Your task to perform on an android device: Go to privacy settings Image 0: 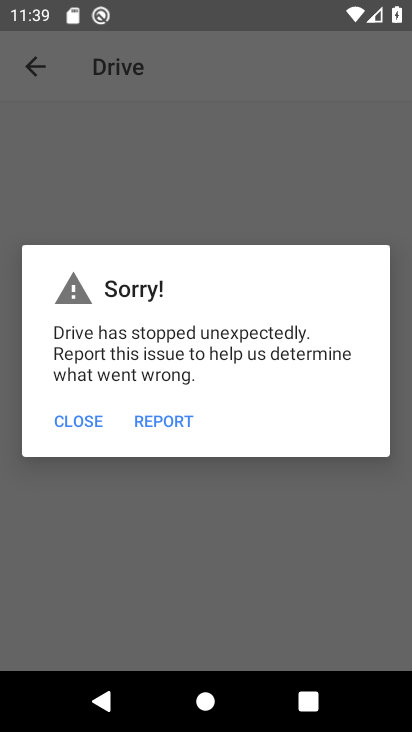
Step 0: press home button
Your task to perform on an android device: Go to privacy settings Image 1: 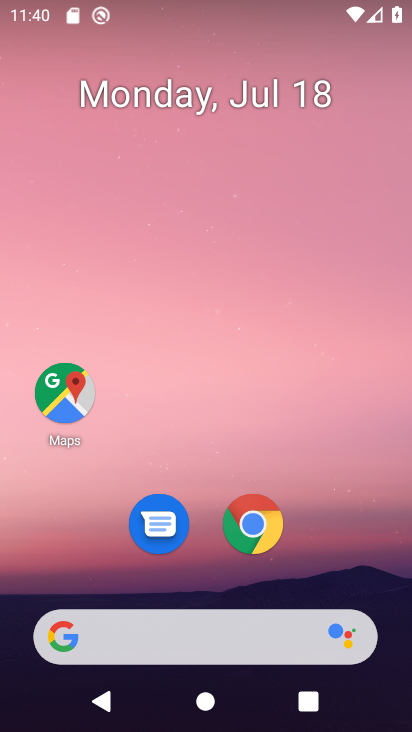
Step 1: drag from (325, 515) to (379, 33)
Your task to perform on an android device: Go to privacy settings Image 2: 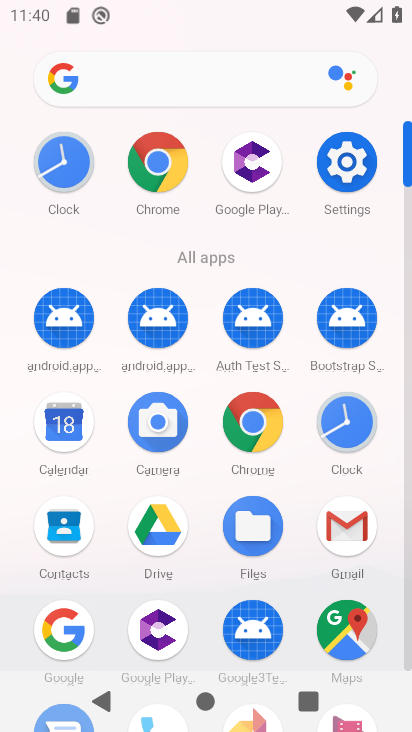
Step 2: click (349, 151)
Your task to perform on an android device: Go to privacy settings Image 3: 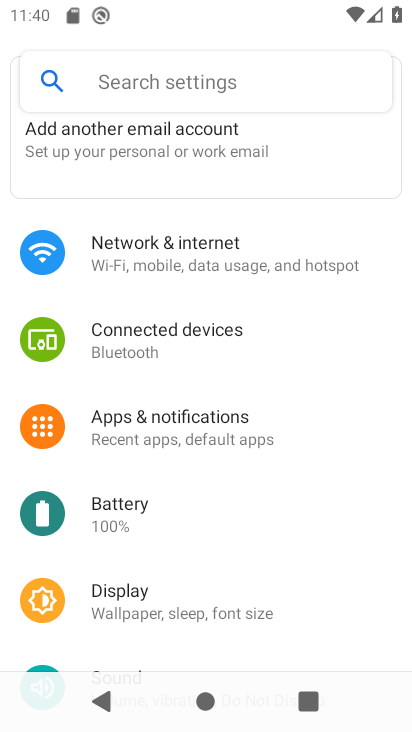
Step 3: drag from (240, 548) to (290, 114)
Your task to perform on an android device: Go to privacy settings Image 4: 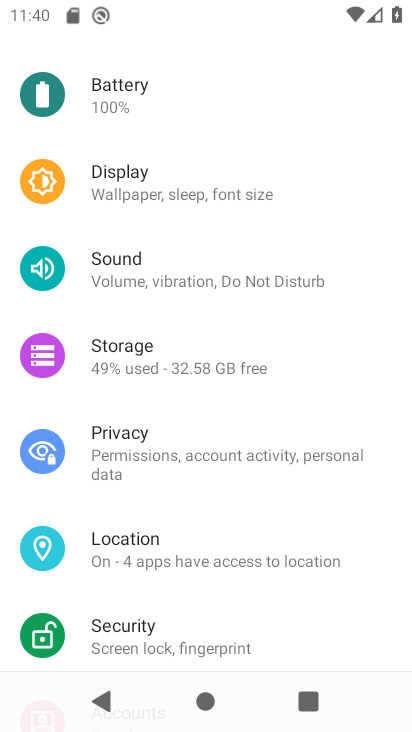
Step 4: click (192, 439)
Your task to perform on an android device: Go to privacy settings Image 5: 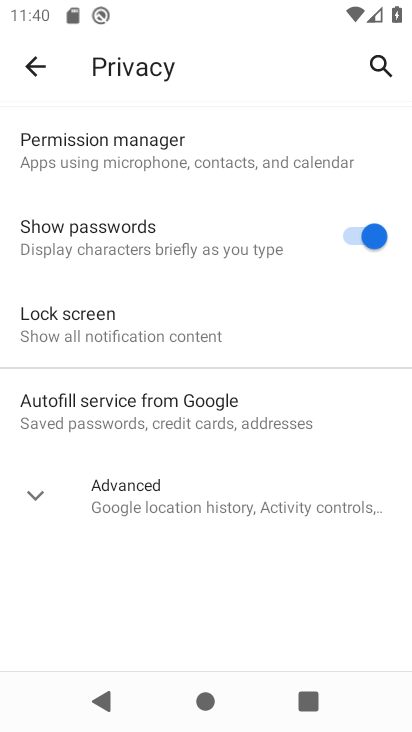
Step 5: task complete